Your task to perform on an android device: Show me the alarms in the clock app Image 0: 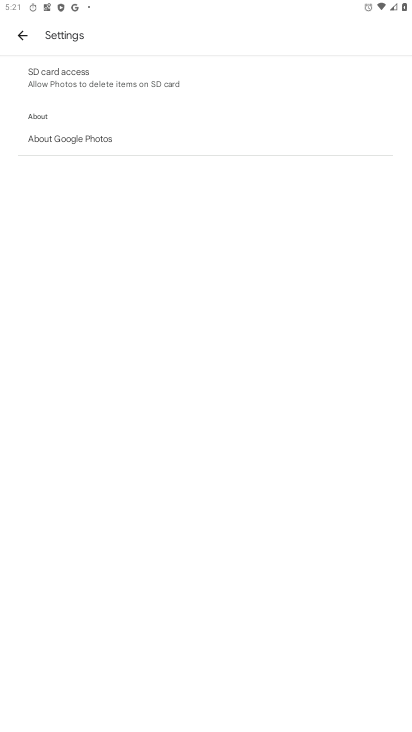
Step 0: press home button
Your task to perform on an android device: Show me the alarms in the clock app Image 1: 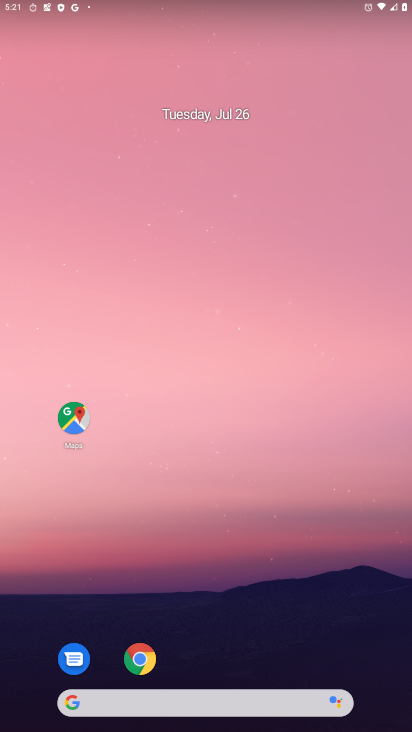
Step 1: drag from (218, 663) to (239, 60)
Your task to perform on an android device: Show me the alarms in the clock app Image 2: 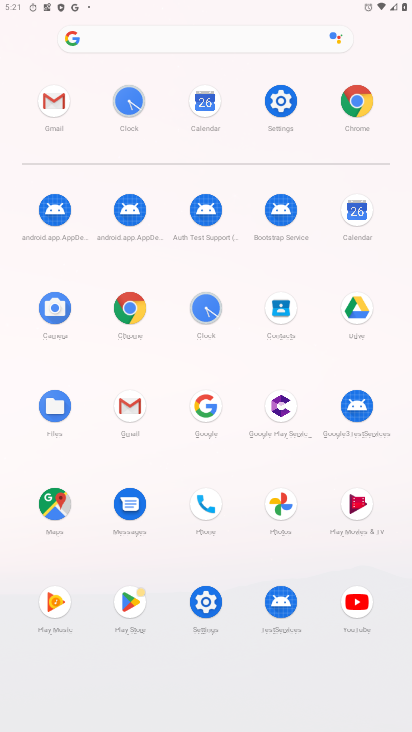
Step 2: click (201, 303)
Your task to perform on an android device: Show me the alarms in the clock app Image 3: 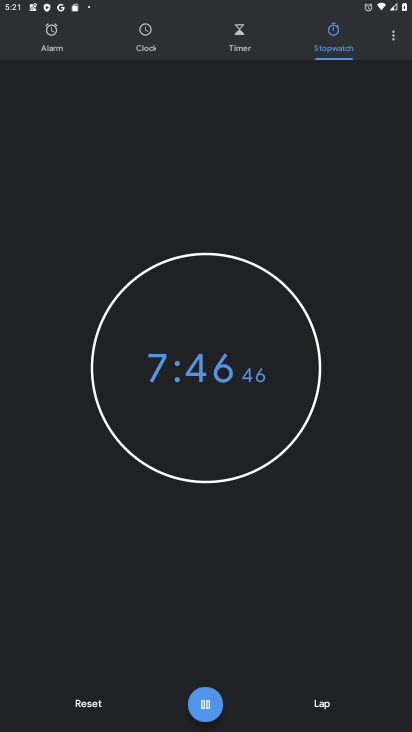
Step 3: click (396, 37)
Your task to perform on an android device: Show me the alarms in the clock app Image 4: 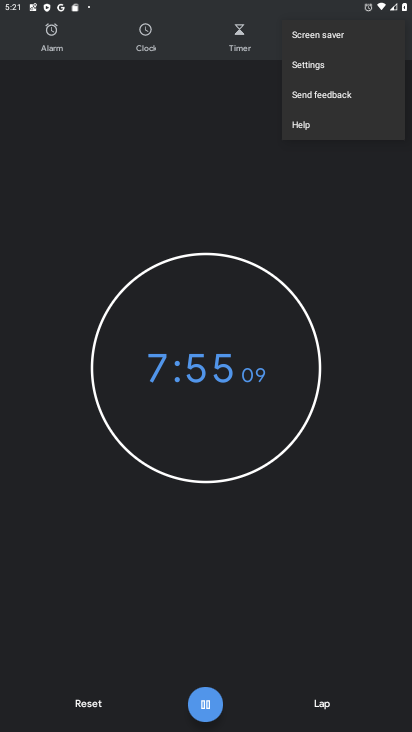
Step 4: click (335, 67)
Your task to perform on an android device: Show me the alarms in the clock app Image 5: 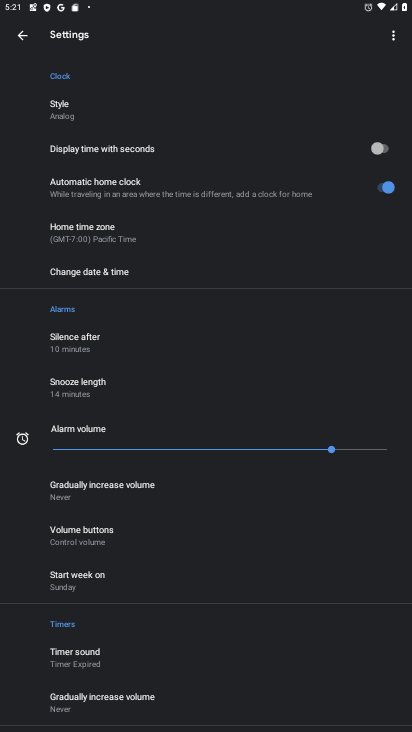
Step 5: click (25, 34)
Your task to perform on an android device: Show me the alarms in the clock app Image 6: 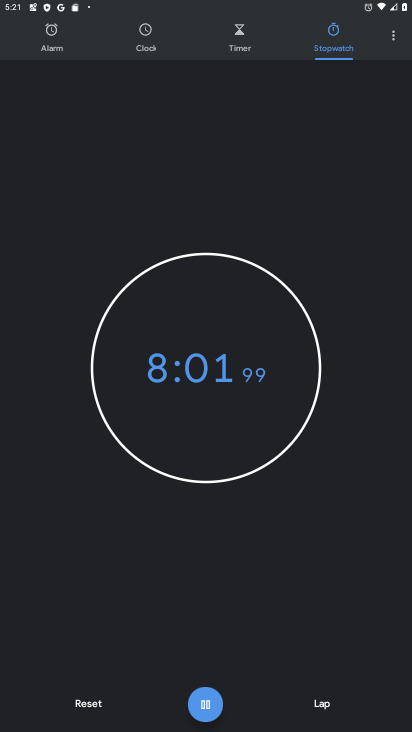
Step 6: click (52, 42)
Your task to perform on an android device: Show me the alarms in the clock app Image 7: 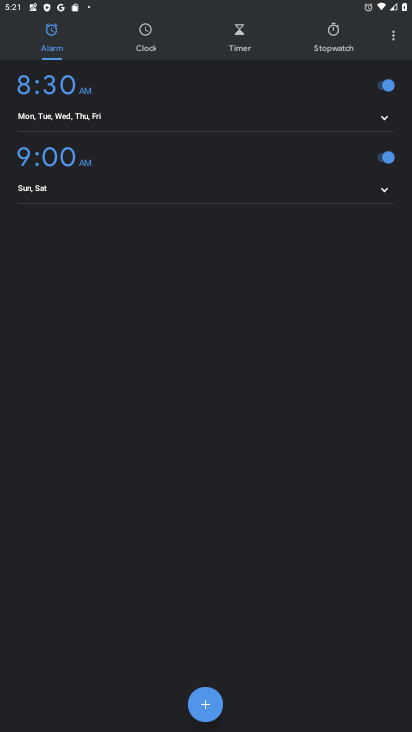
Step 7: task complete